Your task to perform on an android device: Open Wikipedia Image 0: 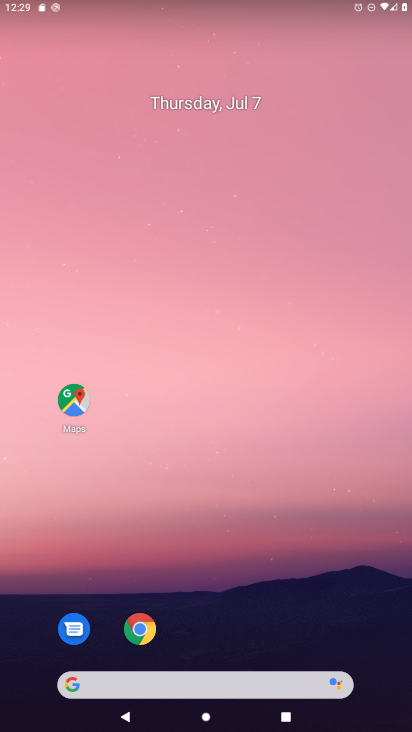
Step 0: drag from (217, 641) to (228, 248)
Your task to perform on an android device: Open Wikipedia Image 1: 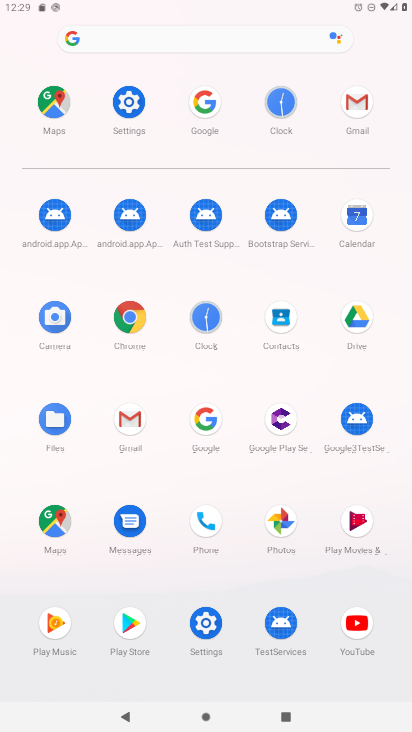
Step 1: click (129, 321)
Your task to perform on an android device: Open Wikipedia Image 2: 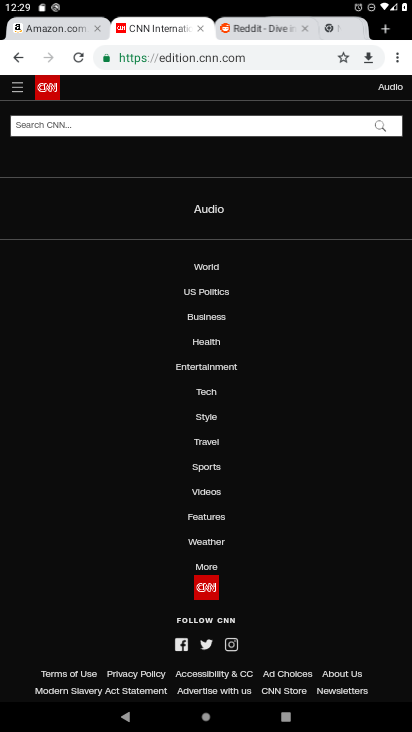
Step 2: click (389, 27)
Your task to perform on an android device: Open Wikipedia Image 3: 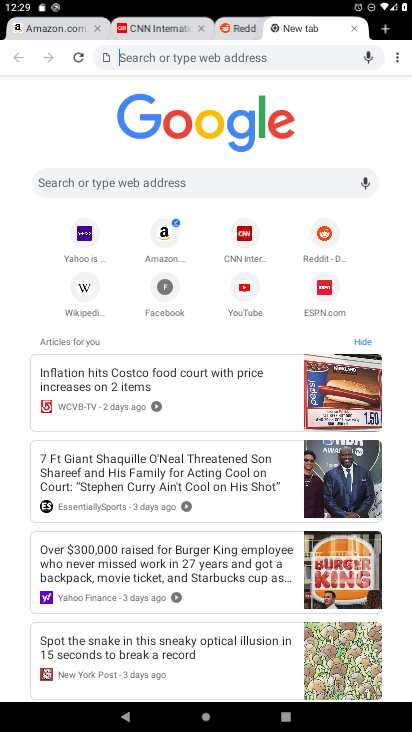
Step 3: click (95, 291)
Your task to perform on an android device: Open Wikipedia Image 4: 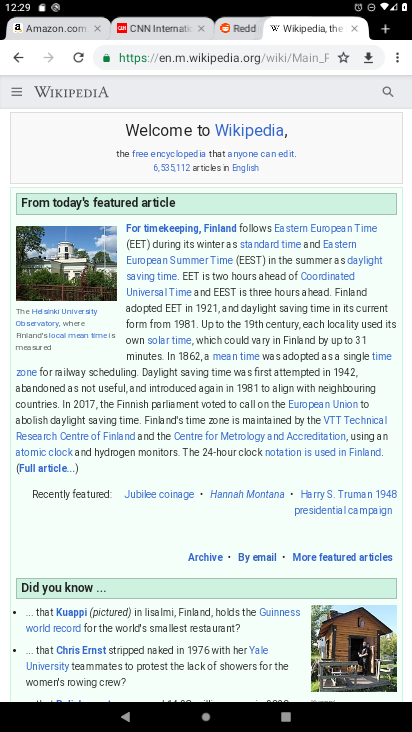
Step 4: task complete